Your task to perform on an android device: open app "The Home Depot" (install if not already installed), go to login, and select forgot password Image 0: 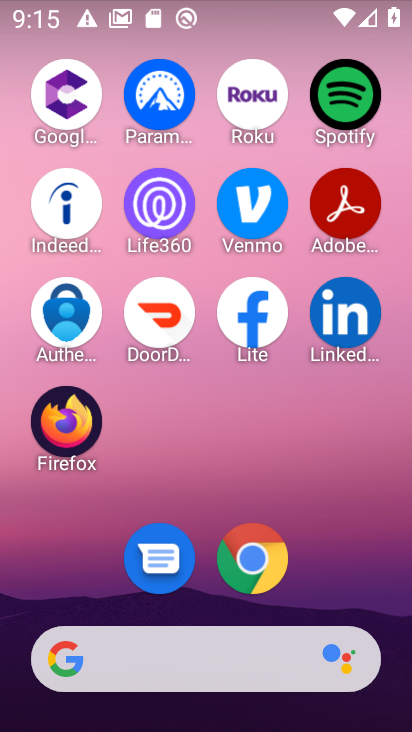
Step 0: drag from (213, 662) to (242, 229)
Your task to perform on an android device: open app "The Home Depot" (install if not already installed), go to login, and select forgot password Image 1: 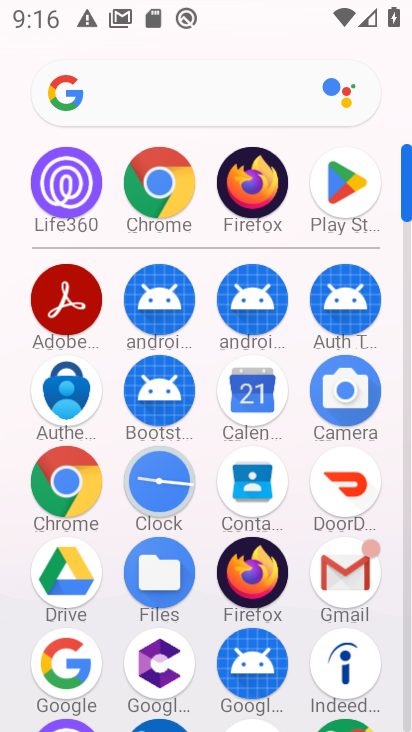
Step 1: click (337, 185)
Your task to perform on an android device: open app "The Home Depot" (install if not already installed), go to login, and select forgot password Image 2: 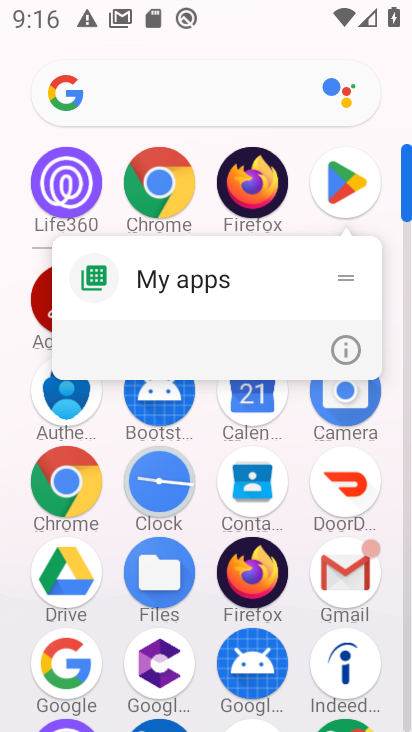
Step 2: click (341, 178)
Your task to perform on an android device: open app "The Home Depot" (install if not already installed), go to login, and select forgot password Image 3: 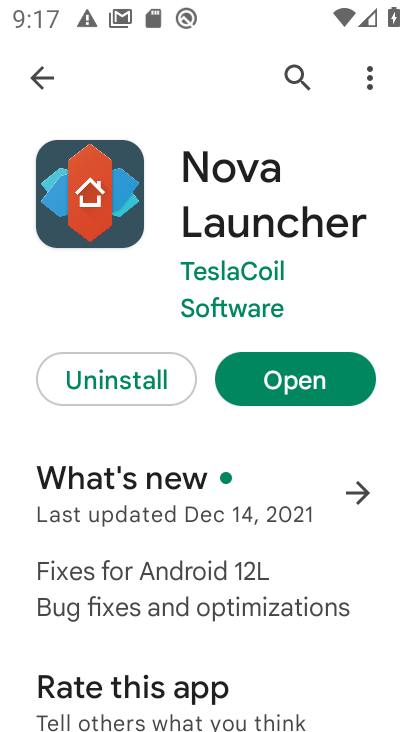
Step 3: click (332, 87)
Your task to perform on an android device: open app "The Home Depot" (install if not already installed), go to login, and select forgot password Image 4: 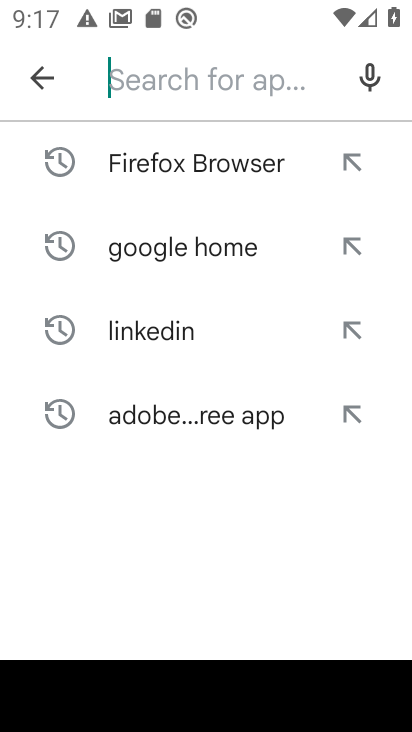
Step 4: click (387, 469)
Your task to perform on an android device: open app "The Home Depot" (install if not already installed), go to login, and select forgot password Image 5: 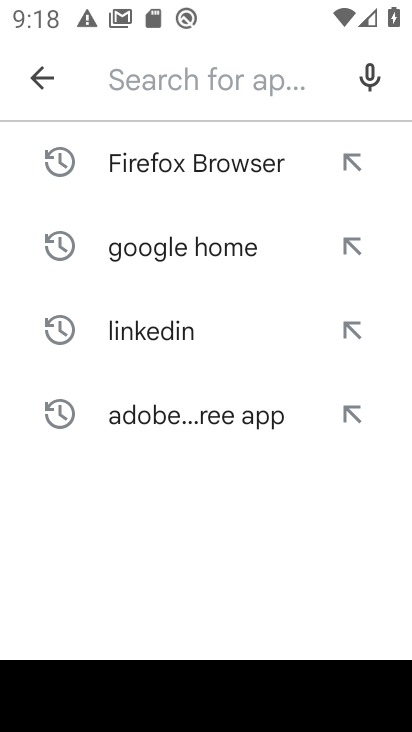
Step 5: type "the home depot"
Your task to perform on an android device: open app "The Home Depot" (install if not already installed), go to login, and select forgot password Image 6: 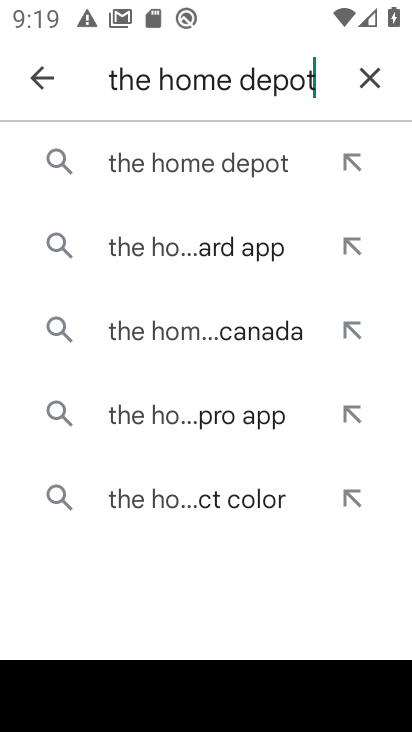
Step 6: click (182, 143)
Your task to perform on an android device: open app "The Home Depot" (install if not already installed), go to login, and select forgot password Image 7: 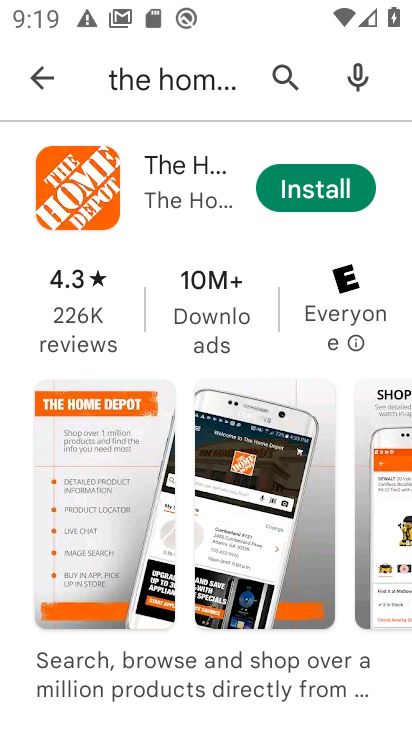
Step 7: click (305, 171)
Your task to perform on an android device: open app "The Home Depot" (install if not already installed), go to login, and select forgot password Image 8: 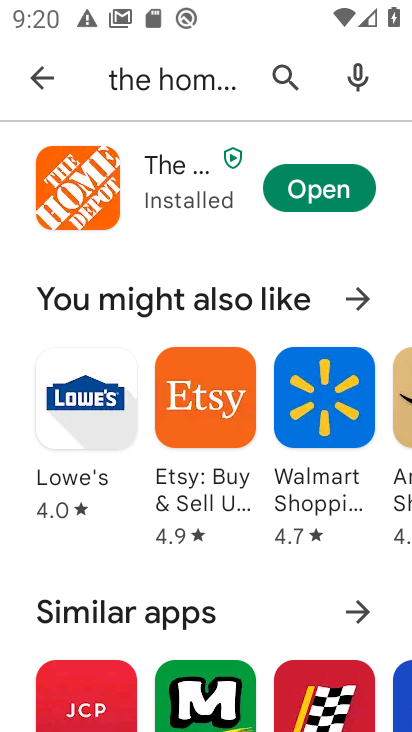
Step 8: click (311, 199)
Your task to perform on an android device: open app "The Home Depot" (install if not already installed), go to login, and select forgot password Image 9: 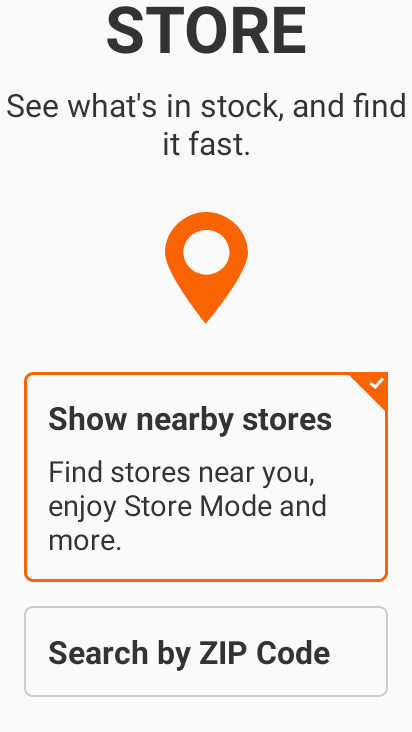
Step 9: click (343, 602)
Your task to perform on an android device: open app "The Home Depot" (install if not already installed), go to login, and select forgot password Image 10: 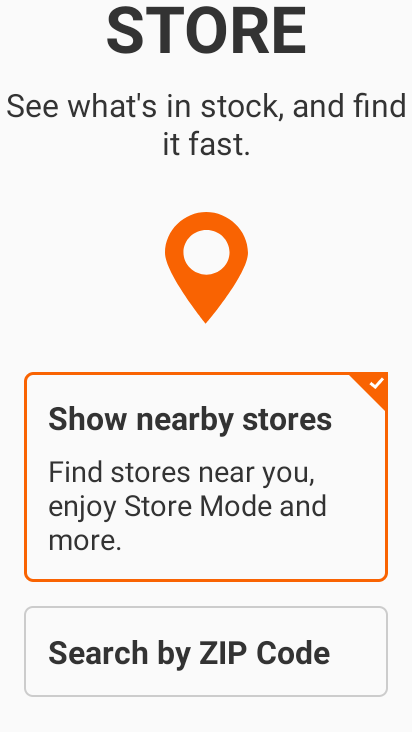
Step 10: click (338, 698)
Your task to perform on an android device: open app "The Home Depot" (install if not already installed), go to login, and select forgot password Image 11: 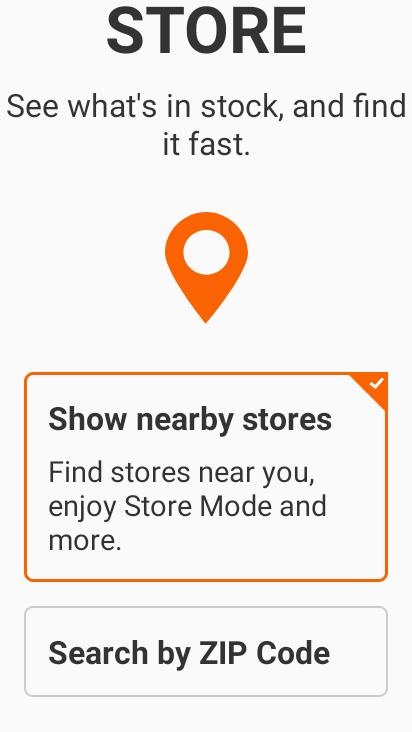
Step 11: click (335, 698)
Your task to perform on an android device: open app "The Home Depot" (install if not already installed), go to login, and select forgot password Image 12: 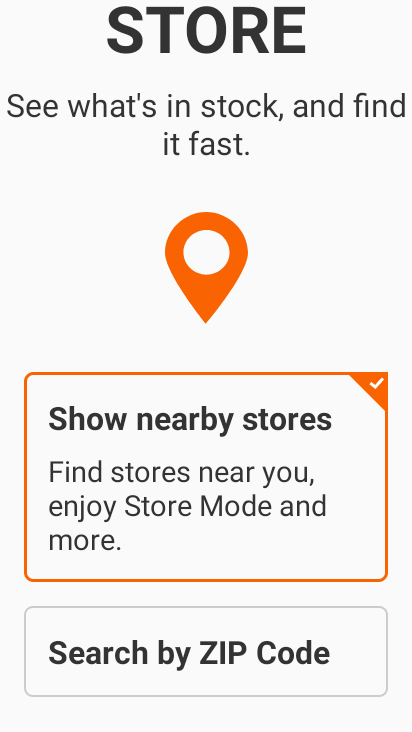
Step 12: click (322, 715)
Your task to perform on an android device: open app "The Home Depot" (install if not already installed), go to login, and select forgot password Image 13: 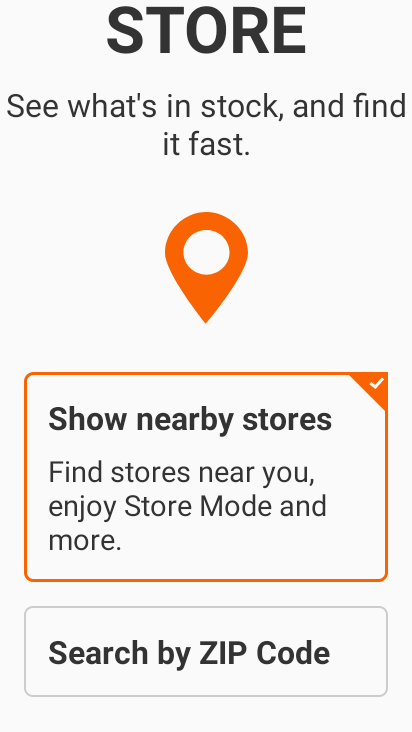
Step 13: drag from (322, 715) to (336, 445)
Your task to perform on an android device: open app "The Home Depot" (install if not already installed), go to login, and select forgot password Image 14: 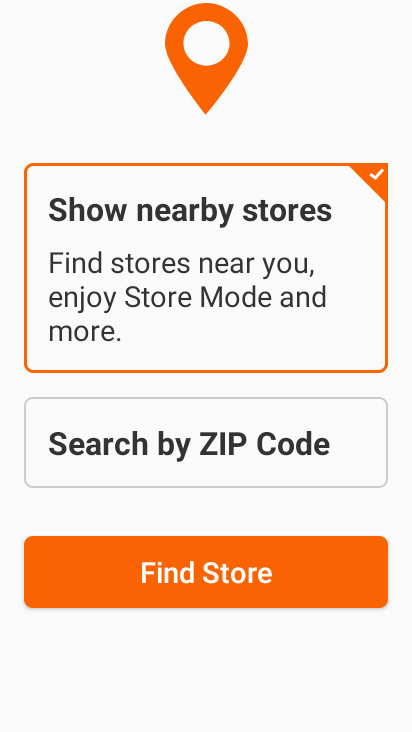
Step 14: click (284, 572)
Your task to perform on an android device: open app "The Home Depot" (install if not already installed), go to login, and select forgot password Image 15: 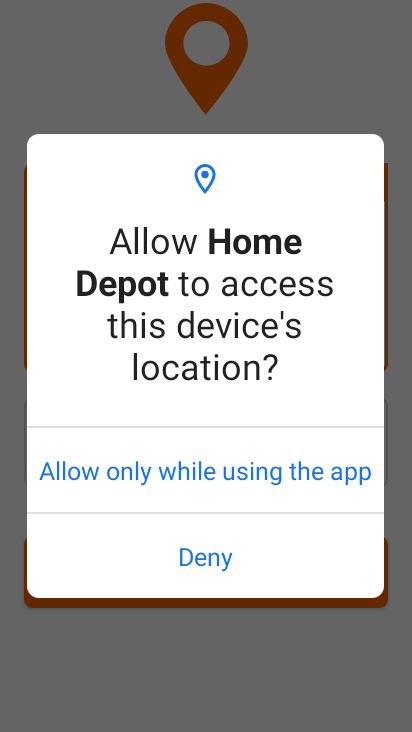
Step 15: click (236, 490)
Your task to perform on an android device: open app "The Home Depot" (install if not already installed), go to login, and select forgot password Image 16: 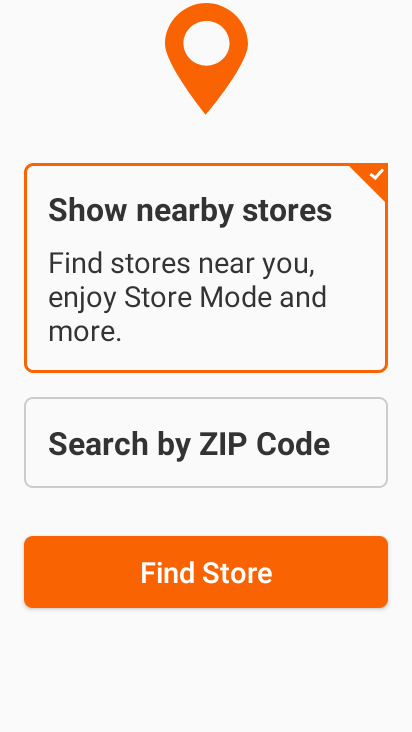
Step 16: task complete